Your task to perform on an android device: open chrome and create a bookmark for the current page Image 0: 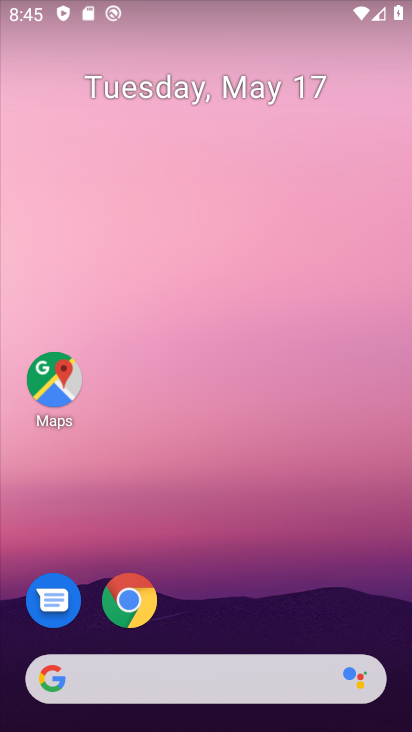
Step 0: click (144, 612)
Your task to perform on an android device: open chrome and create a bookmark for the current page Image 1: 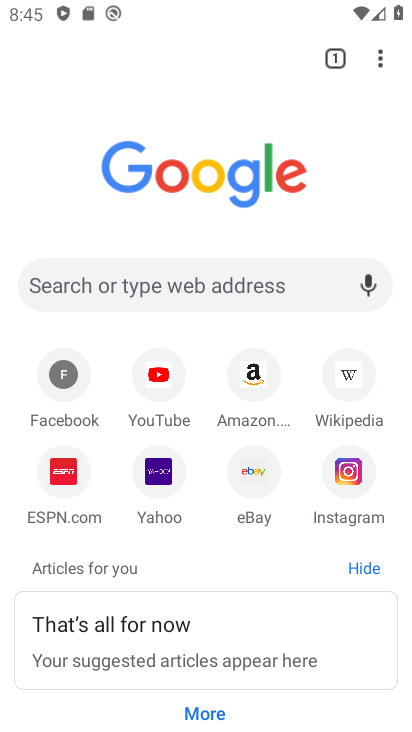
Step 1: click (383, 56)
Your task to perform on an android device: open chrome and create a bookmark for the current page Image 2: 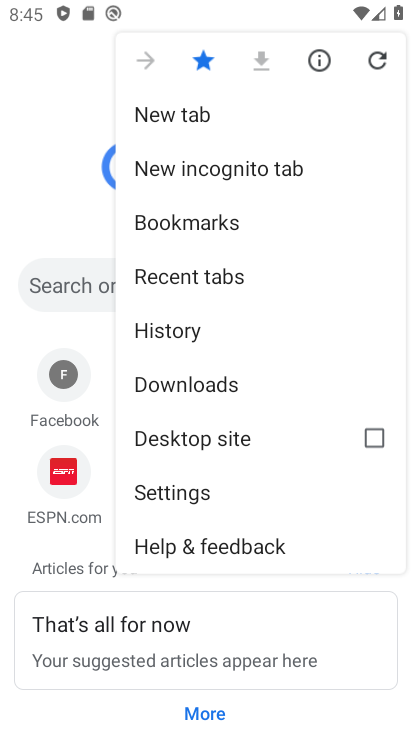
Step 2: task complete